Your task to perform on an android device: What's the weather going to be this weekend? Image 0: 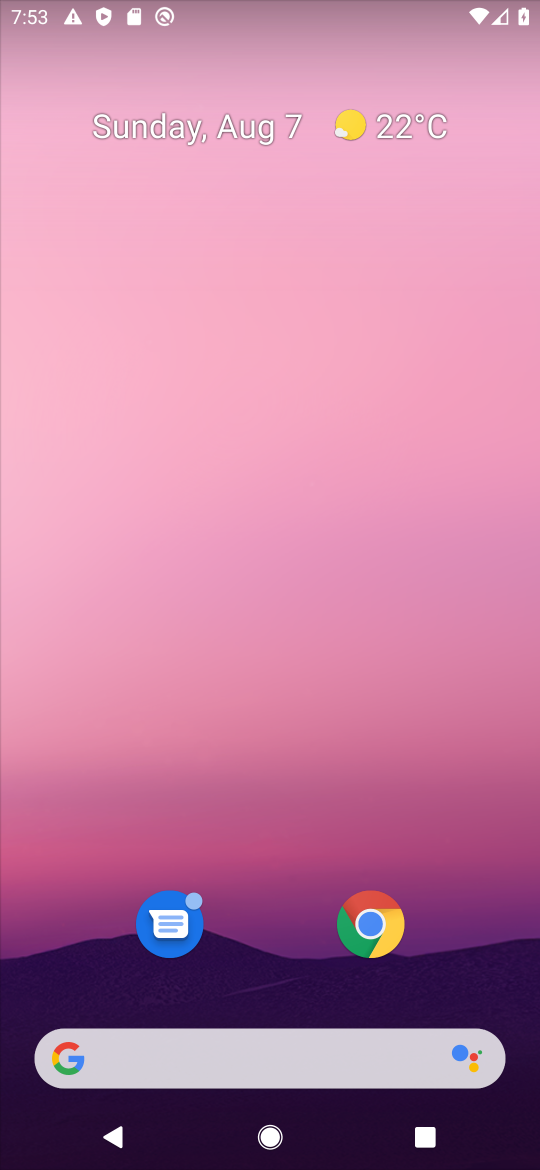
Step 0: drag from (276, 890) to (298, 22)
Your task to perform on an android device: What's the weather going to be this weekend? Image 1: 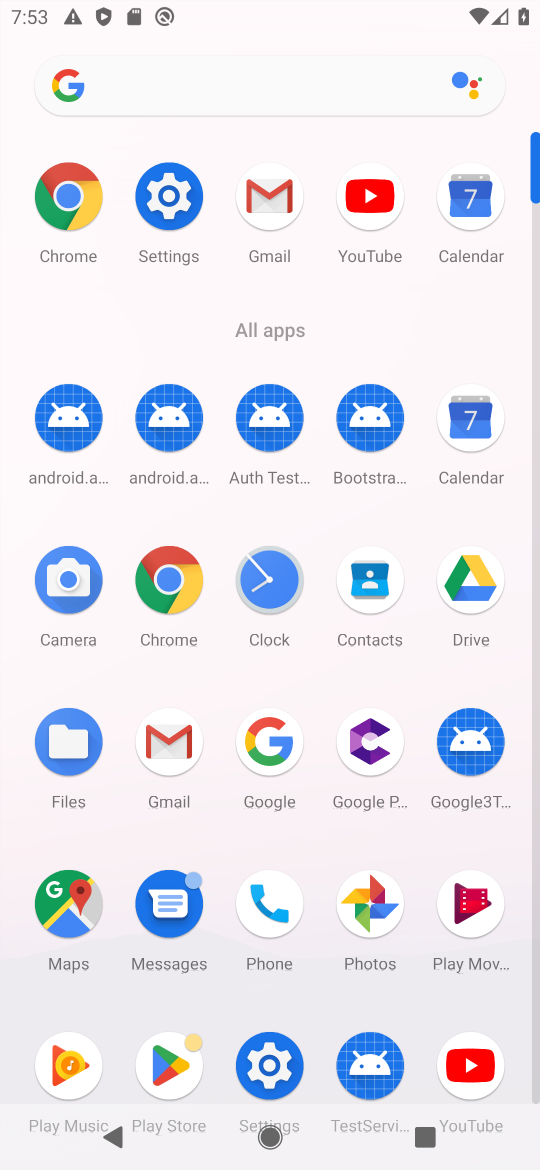
Step 1: press back button
Your task to perform on an android device: What's the weather going to be this weekend? Image 2: 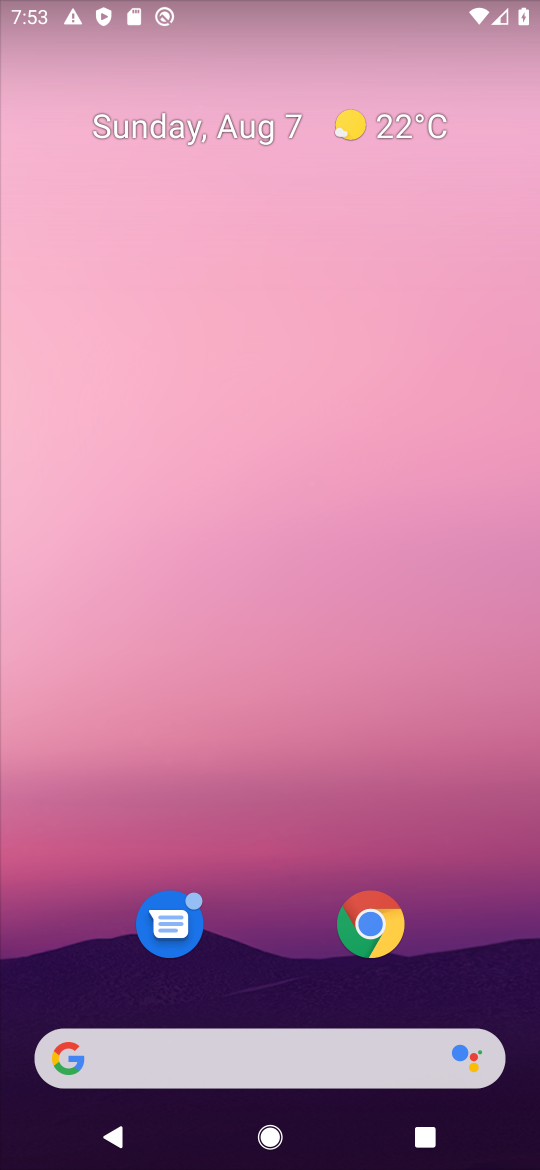
Step 2: click (373, 1071)
Your task to perform on an android device: What's the weather going to be this weekend? Image 3: 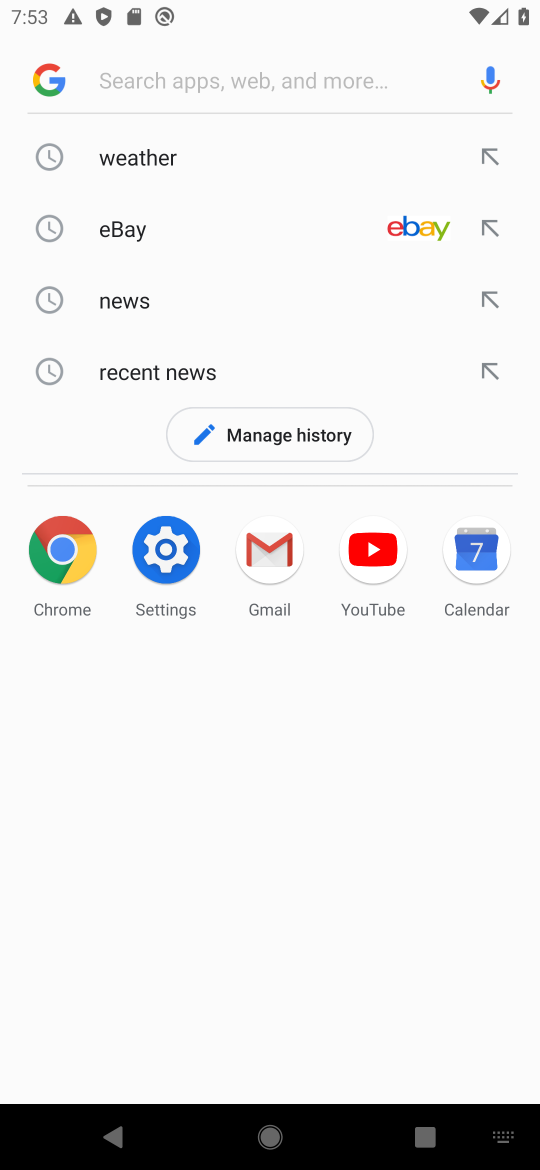
Step 3: click (177, 156)
Your task to perform on an android device: What's the weather going to be this weekend? Image 4: 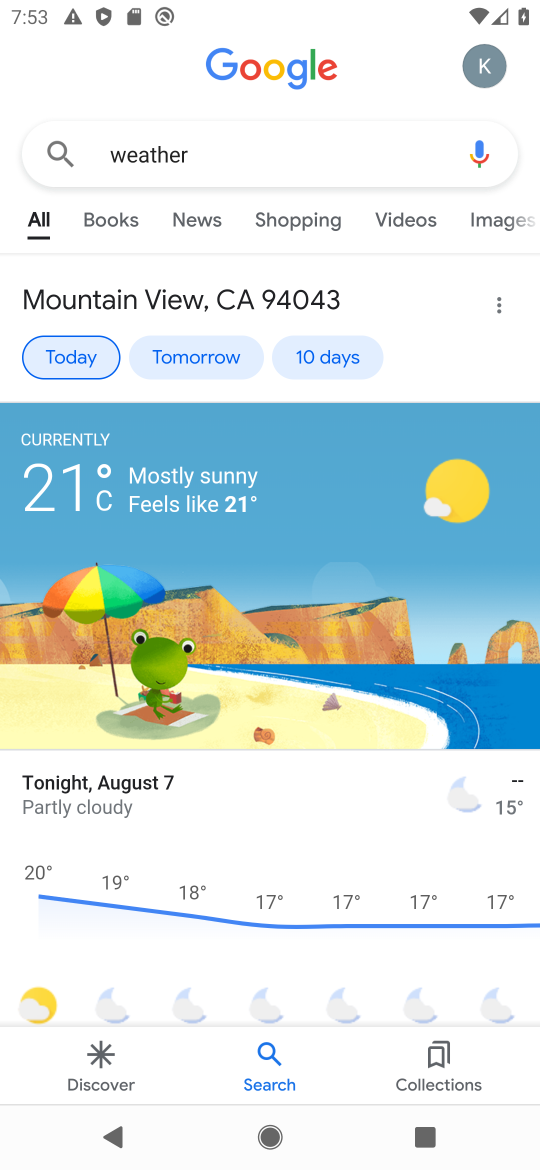
Step 4: click (343, 355)
Your task to perform on an android device: What's the weather going to be this weekend? Image 5: 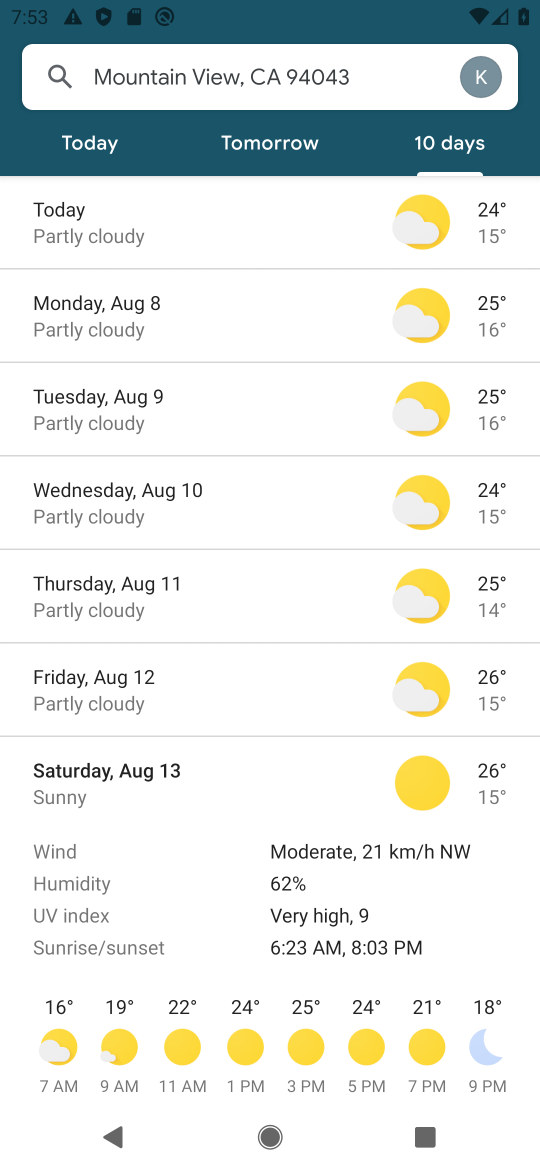
Step 5: task complete